Your task to perform on an android device: Search for lg ultragear on newegg, select the first entry, and add it to the cart. Image 0: 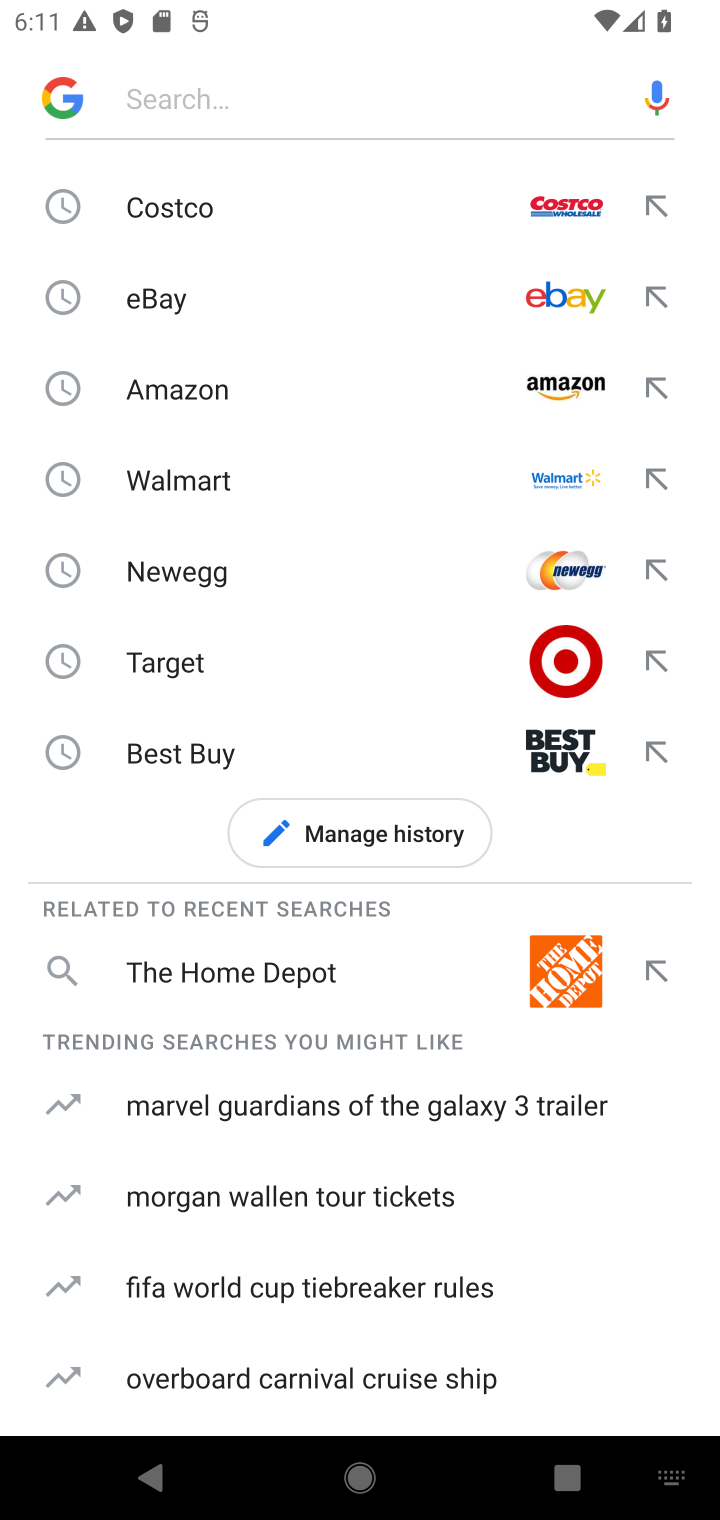
Step 0: click (373, 584)
Your task to perform on an android device: Search for lg ultragear on newegg, select the first entry, and add it to the cart. Image 1: 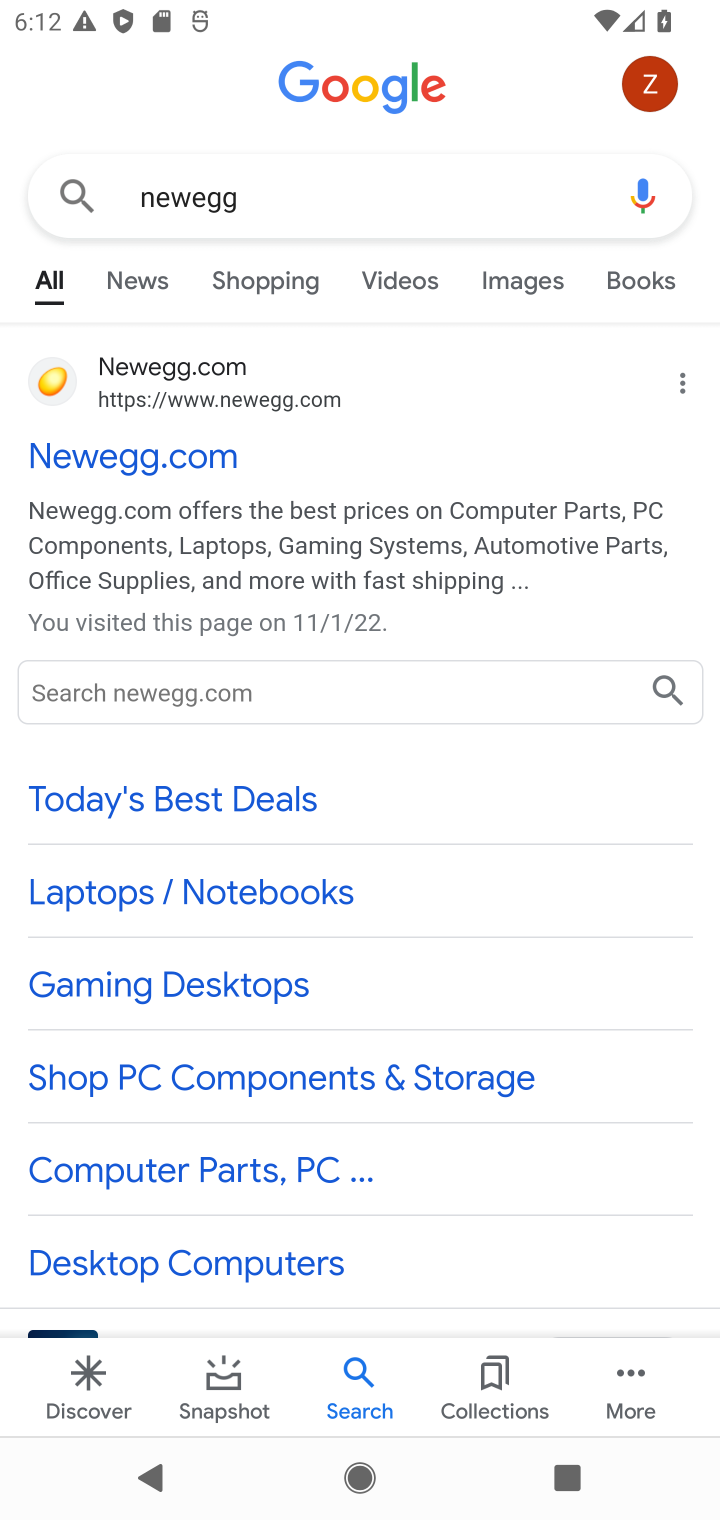
Step 1: click (465, 211)
Your task to perform on an android device: Search for lg ultragear on newegg, select the first entry, and add it to the cart. Image 2: 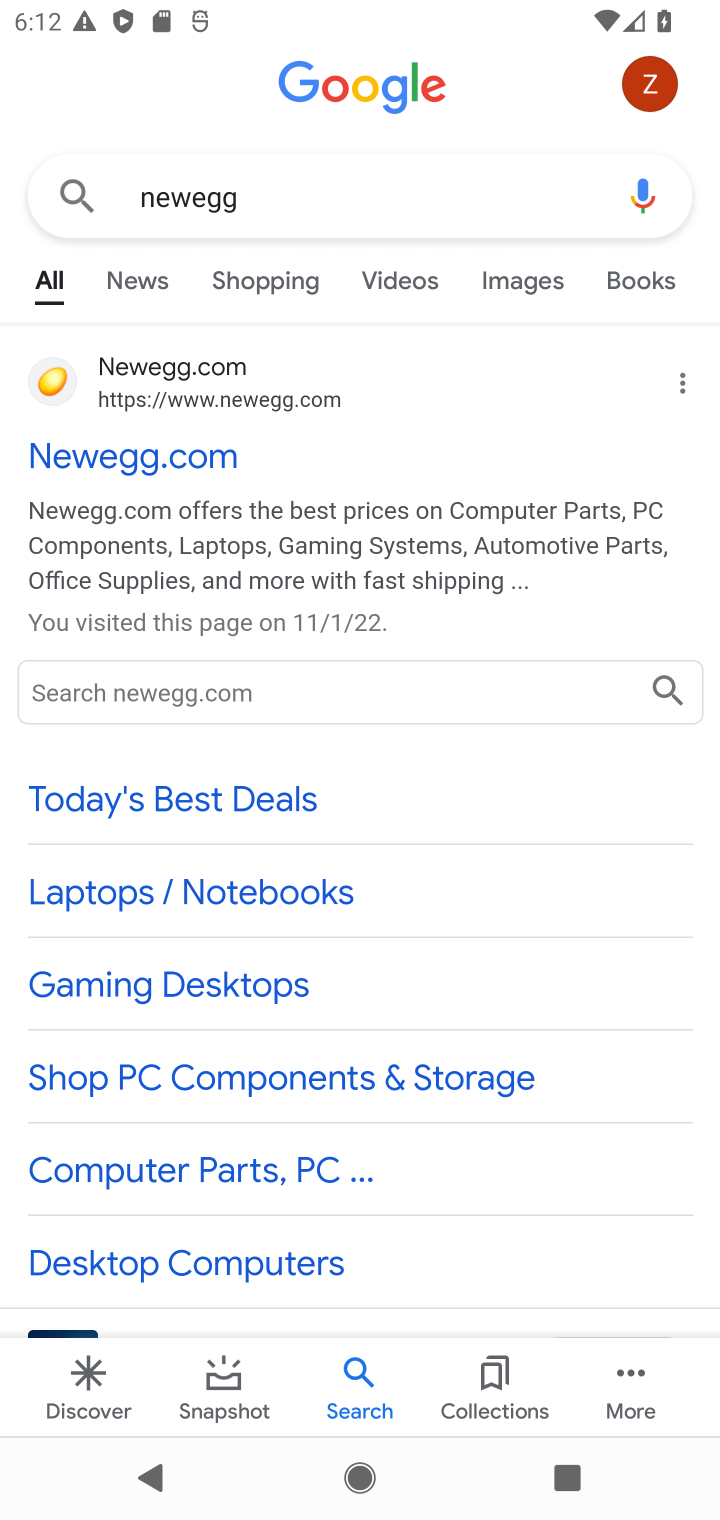
Step 2: click (465, 211)
Your task to perform on an android device: Search for lg ultragear on newegg, select the first entry, and add it to the cart. Image 3: 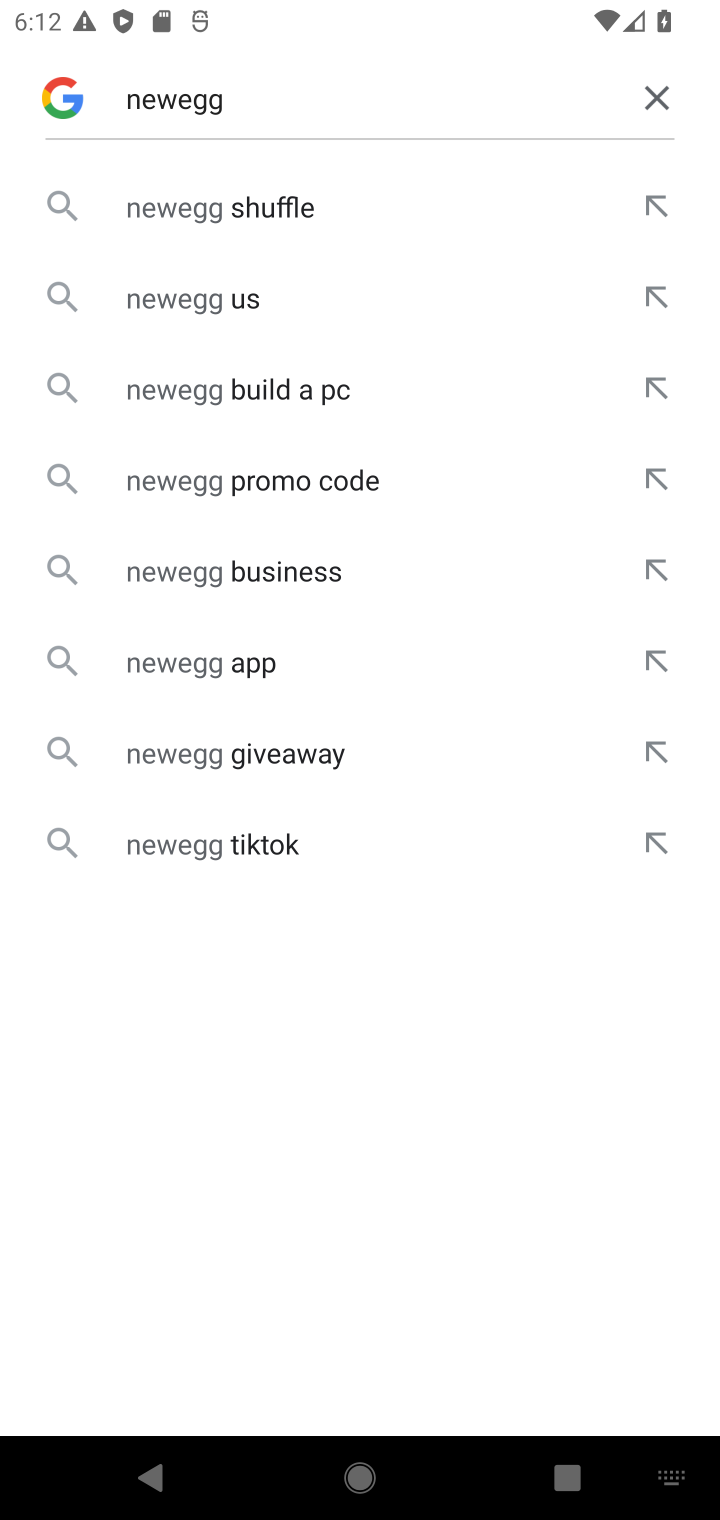
Step 3: click (222, 455)
Your task to perform on an android device: Search for lg ultragear on newegg, select the first entry, and add it to the cart. Image 4: 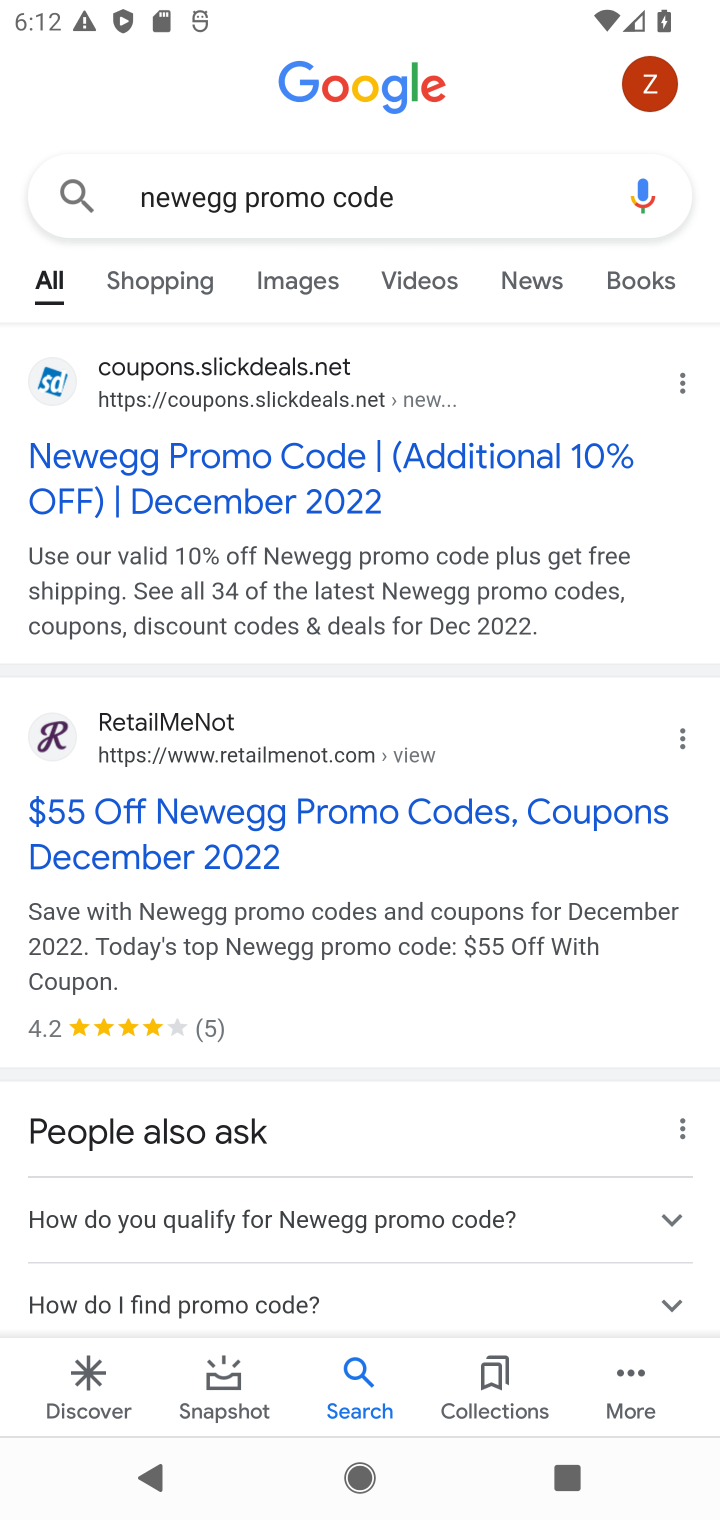
Step 4: task complete